Your task to perform on an android device: View the shopping cart on costco. Add "sony triple a" to the cart on costco, then select checkout. Image 0: 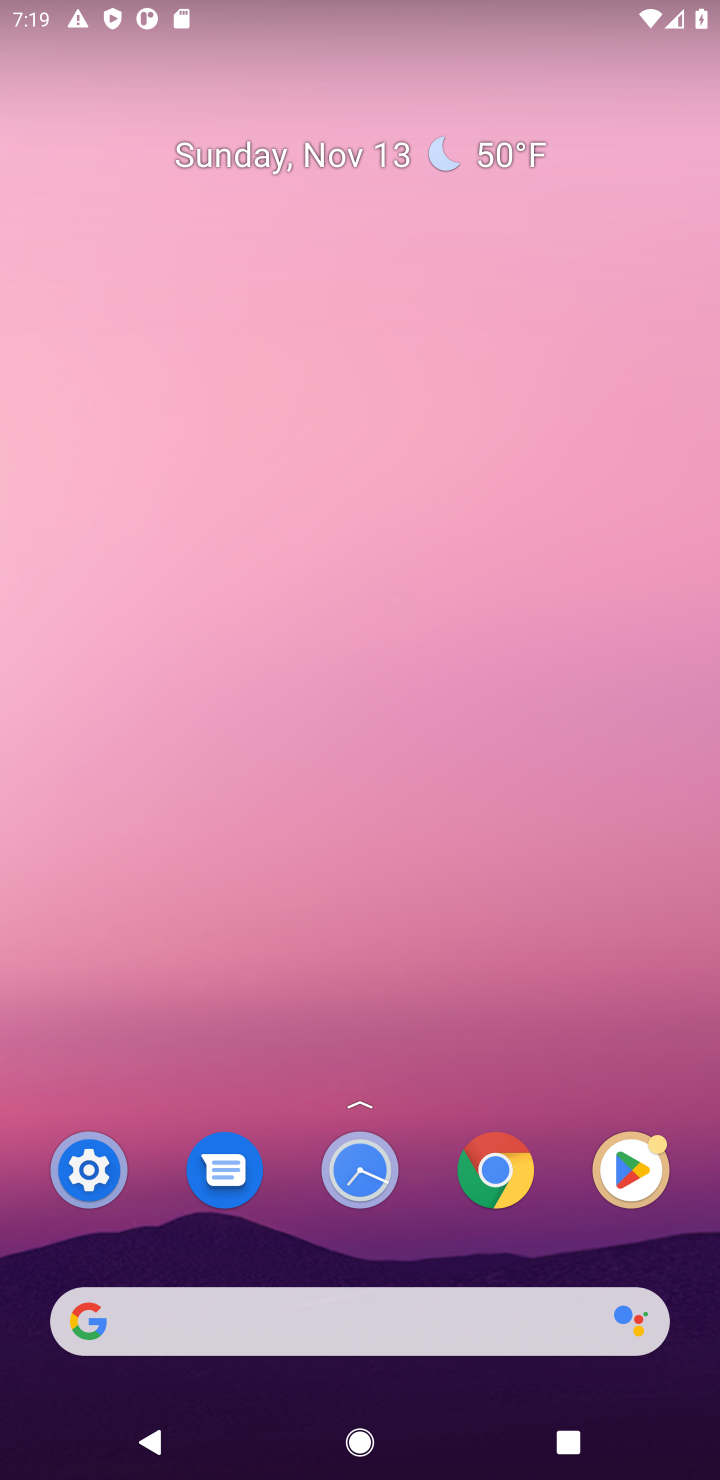
Step 0: click (417, 1323)
Your task to perform on an android device: View the shopping cart on costco. Add "sony triple a" to the cart on costco, then select checkout. Image 1: 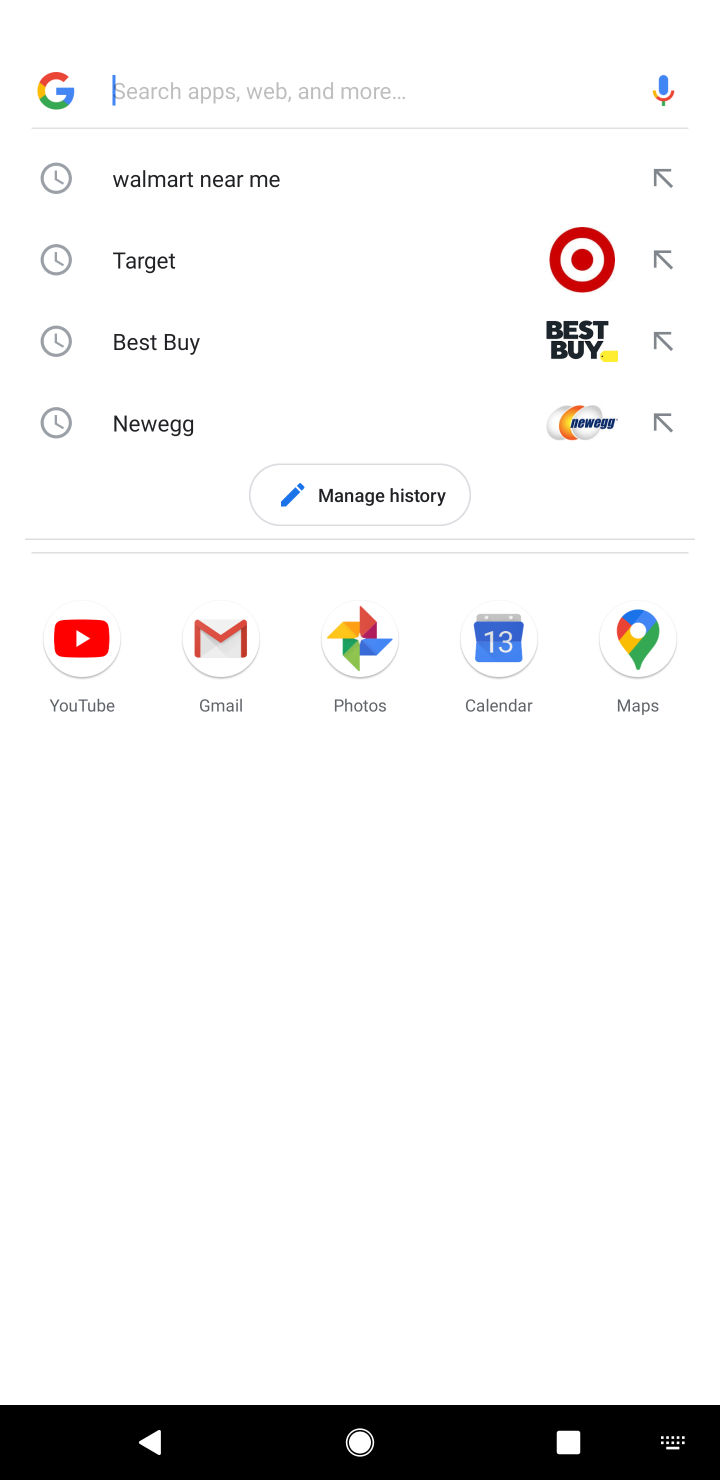
Step 1: type "costco"
Your task to perform on an android device: View the shopping cart on costco. Add "sony triple a" to the cart on costco, then select checkout. Image 2: 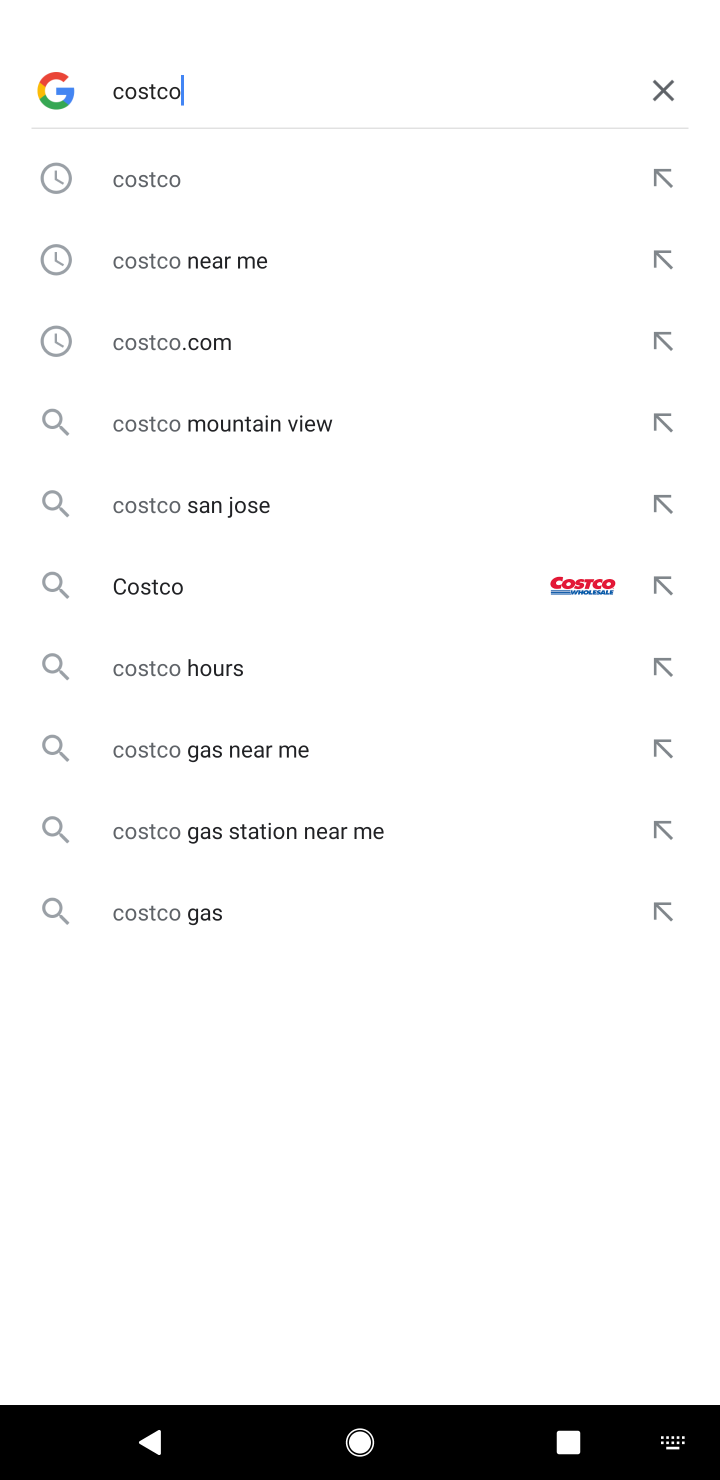
Step 2: click (319, 562)
Your task to perform on an android device: View the shopping cart on costco. Add "sony triple a" to the cart on costco, then select checkout. Image 3: 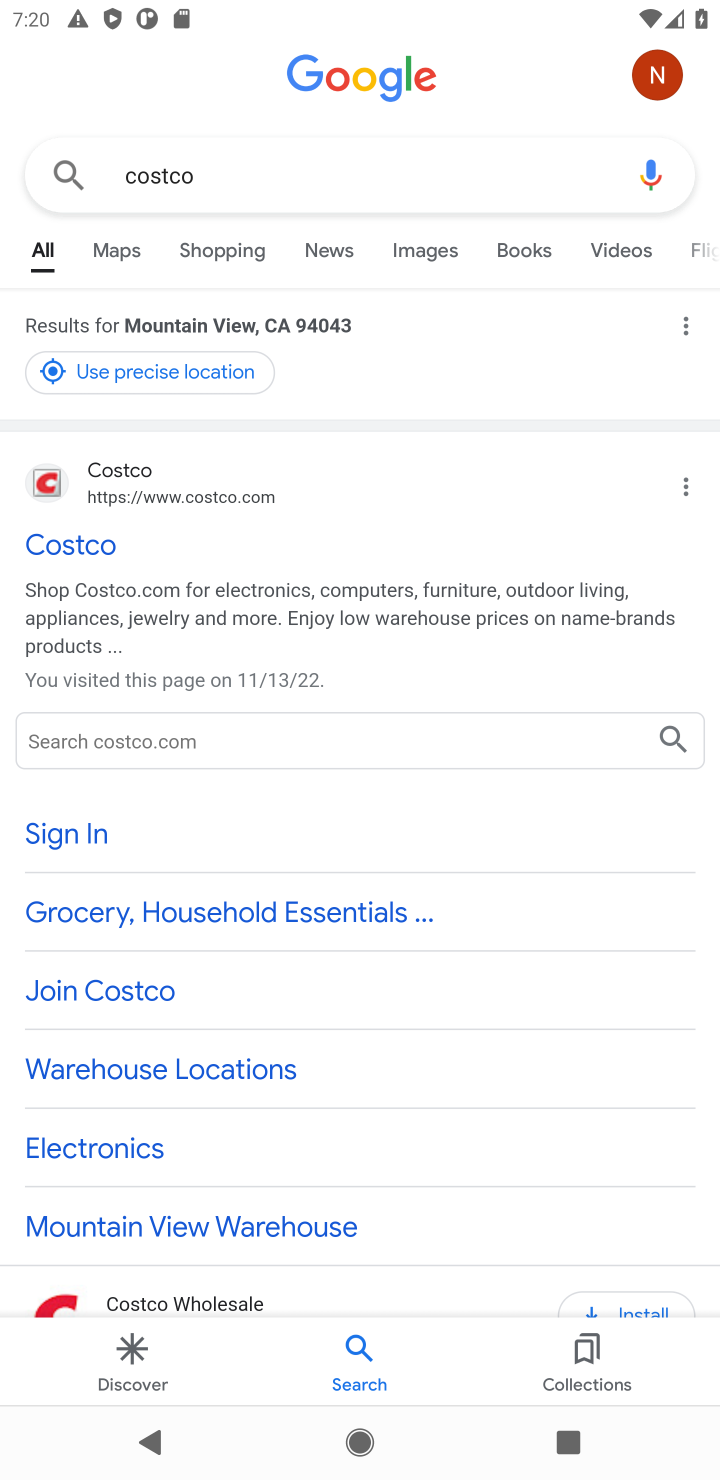
Step 3: click (169, 474)
Your task to perform on an android device: View the shopping cart on costco. Add "sony triple a" to the cart on costco, then select checkout. Image 4: 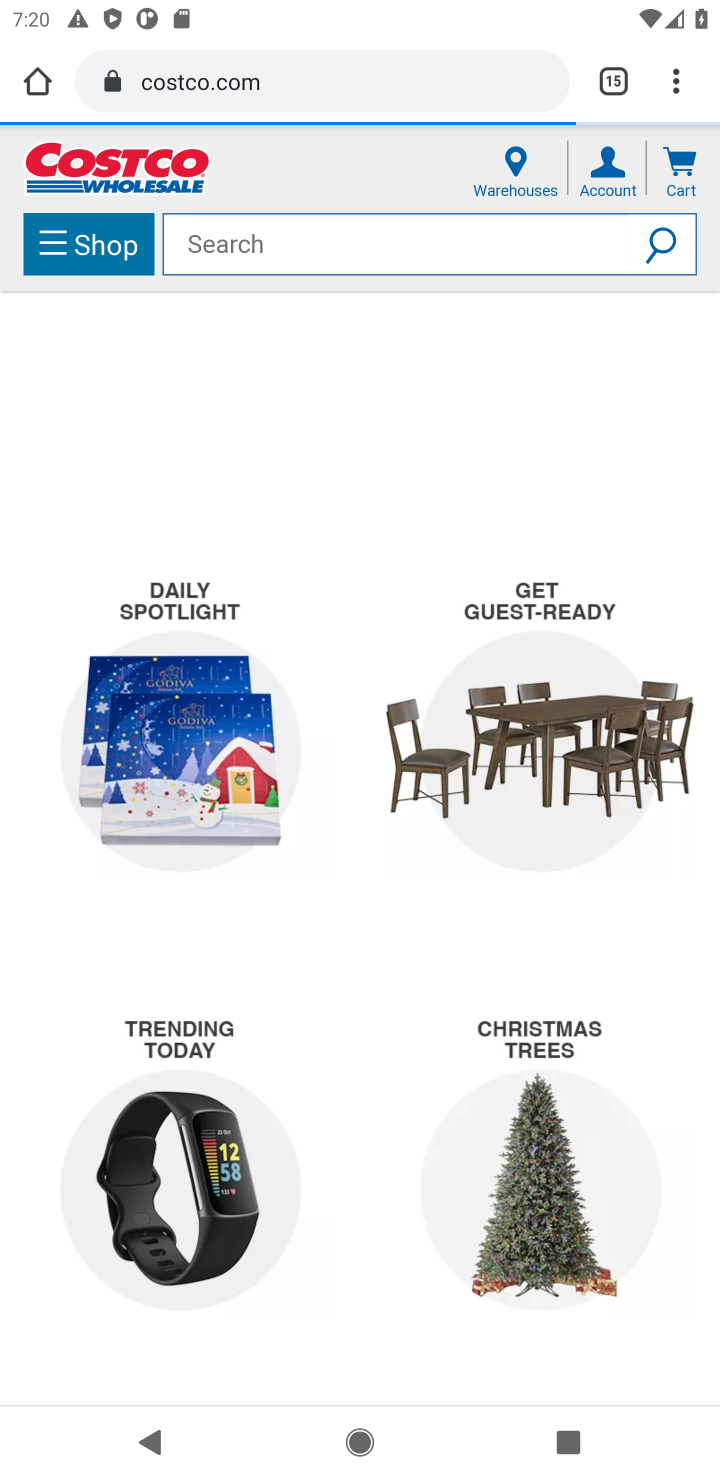
Step 4: task complete